Your task to perform on an android device: Search for pizza restaurants on Maps Image 0: 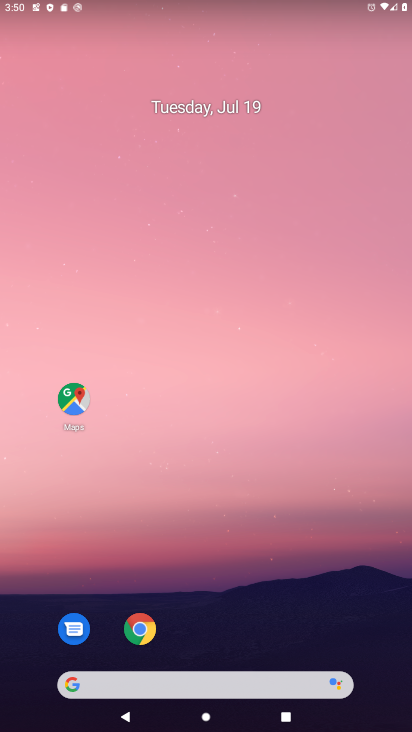
Step 0: click (62, 399)
Your task to perform on an android device: Search for pizza restaurants on Maps Image 1: 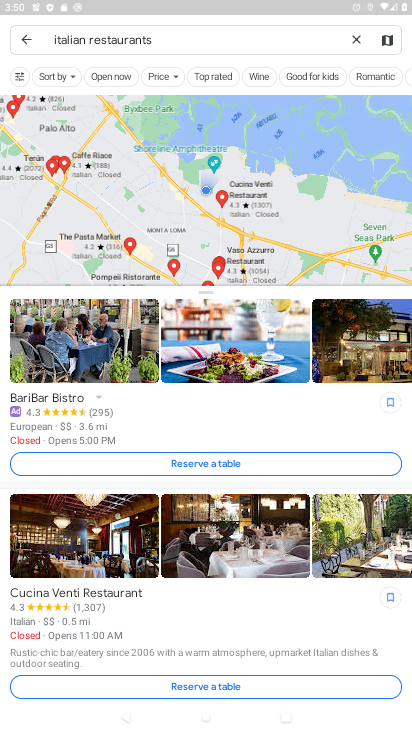
Step 1: click (356, 35)
Your task to perform on an android device: Search for pizza restaurants on Maps Image 2: 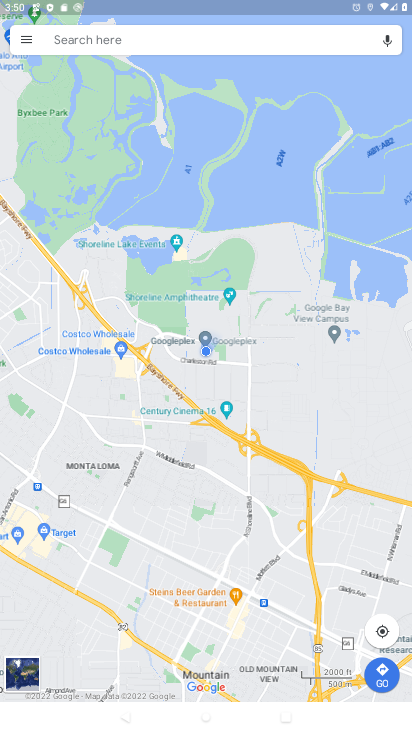
Step 2: click (74, 36)
Your task to perform on an android device: Search for pizza restaurants on Maps Image 3: 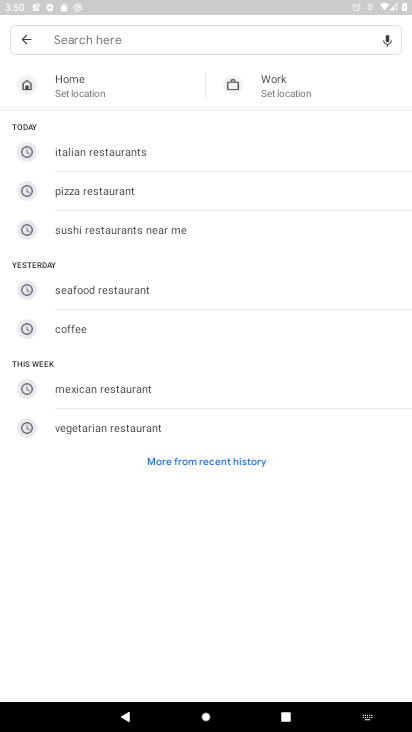
Step 3: click (94, 198)
Your task to perform on an android device: Search for pizza restaurants on Maps Image 4: 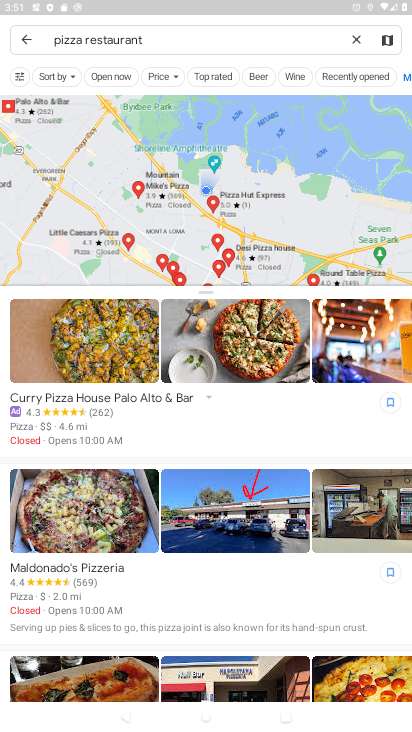
Step 4: task complete